Your task to perform on an android device: change notifications settings Image 0: 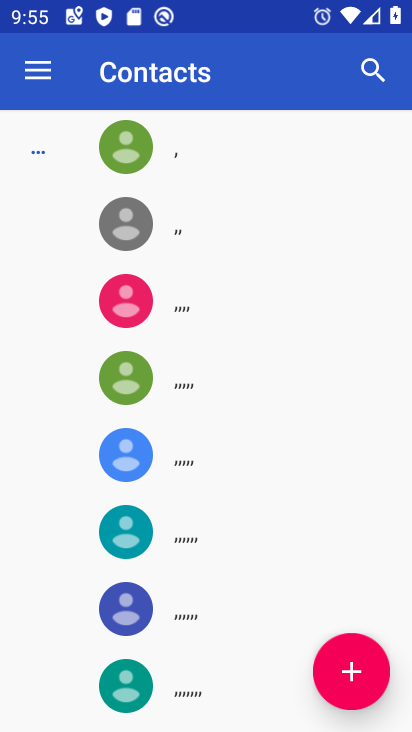
Step 0: press home button
Your task to perform on an android device: change notifications settings Image 1: 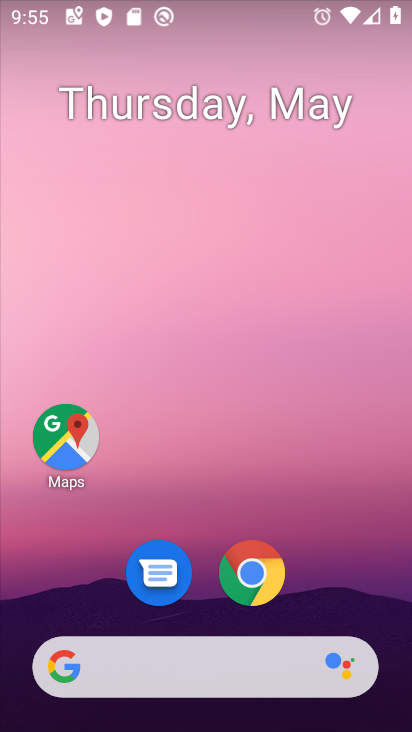
Step 1: drag from (202, 628) to (191, 234)
Your task to perform on an android device: change notifications settings Image 2: 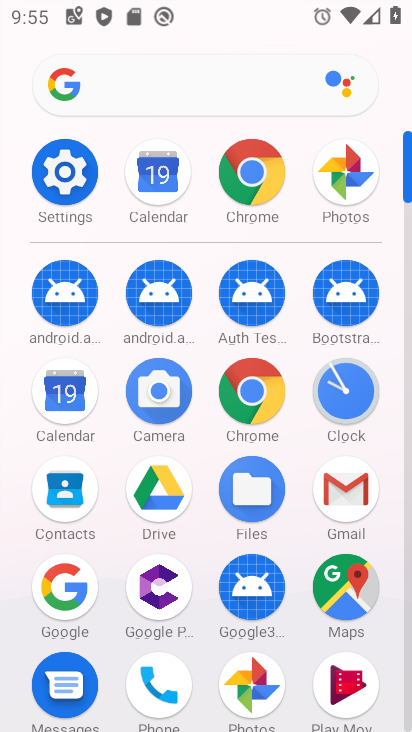
Step 2: click (57, 175)
Your task to perform on an android device: change notifications settings Image 3: 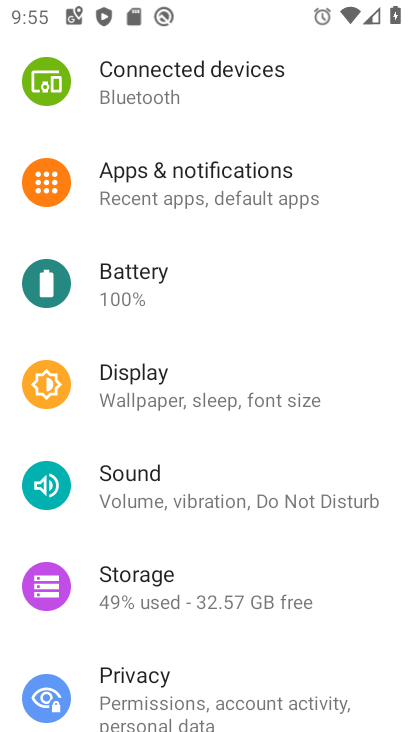
Step 3: click (227, 201)
Your task to perform on an android device: change notifications settings Image 4: 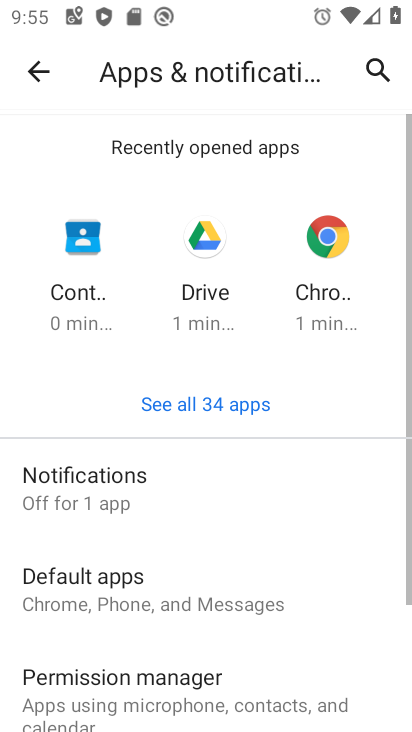
Step 4: click (205, 496)
Your task to perform on an android device: change notifications settings Image 5: 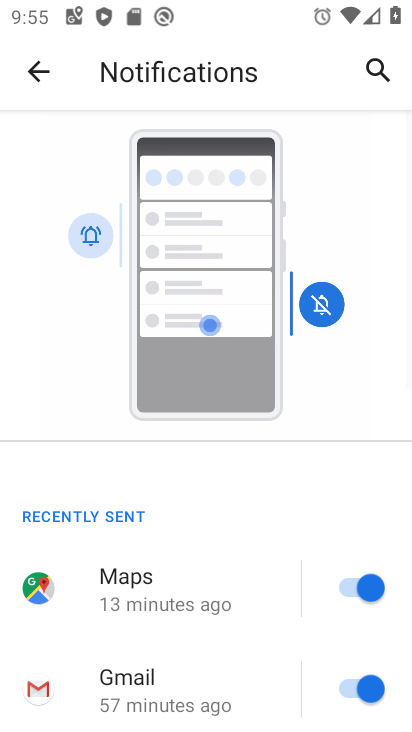
Step 5: drag from (223, 664) to (237, 300)
Your task to perform on an android device: change notifications settings Image 6: 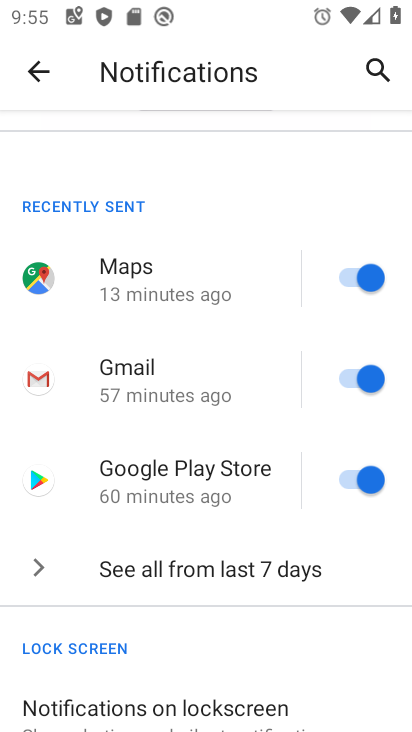
Step 6: drag from (265, 631) to (268, 327)
Your task to perform on an android device: change notifications settings Image 7: 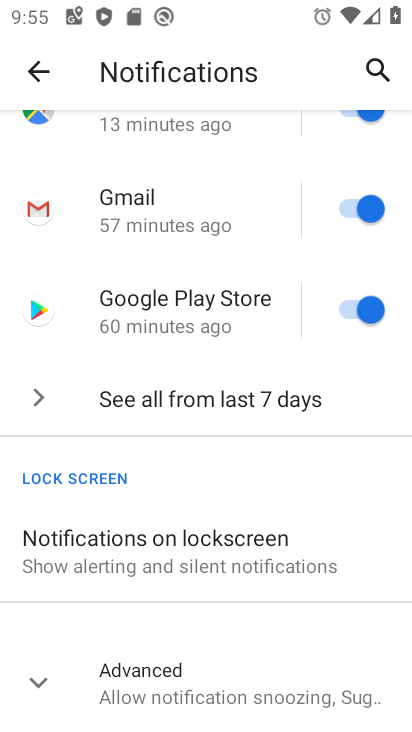
Step 7: click (198, 677)
Your task to perform on an android device: change notifications settings Image 8: 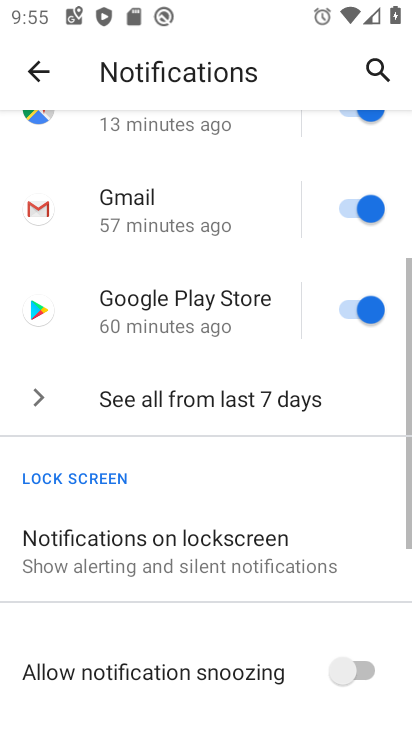
Step 8: task complete